Your task to perform on an android device: Play the last video I watched on Youtube Image 0: 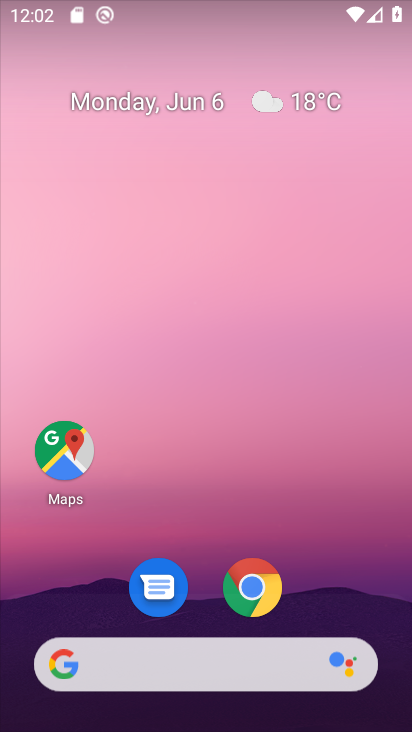
Step 0: drag from (273, 576) to (273, 145)
Your task to perform on an android device: Play the last video I watched on Youtube Image 1: 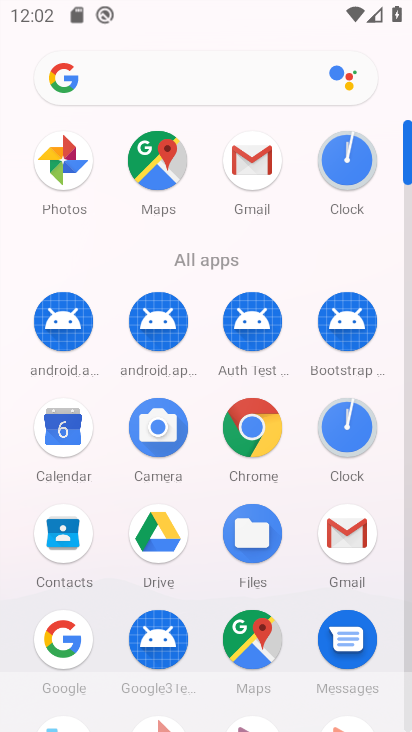
Step 1: drag from (349, 584) to (296, 328)
Your task to perform on an android device: Play the last video I watched on Youtube Image 2: 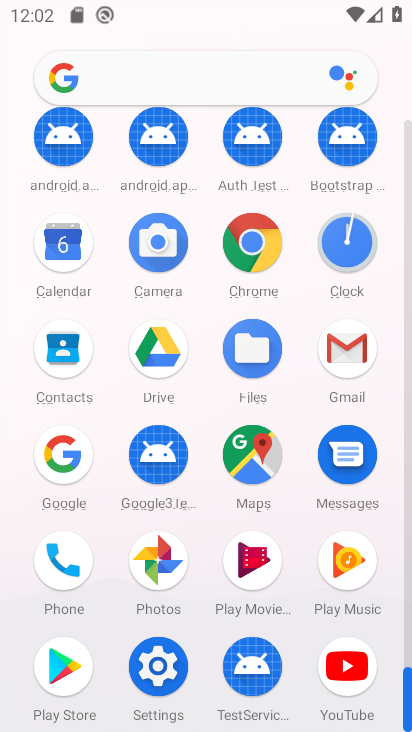
Step 2: click (342, 691)
Your task to perform on an android device: Play the last video I watched on Youtube Image 3: 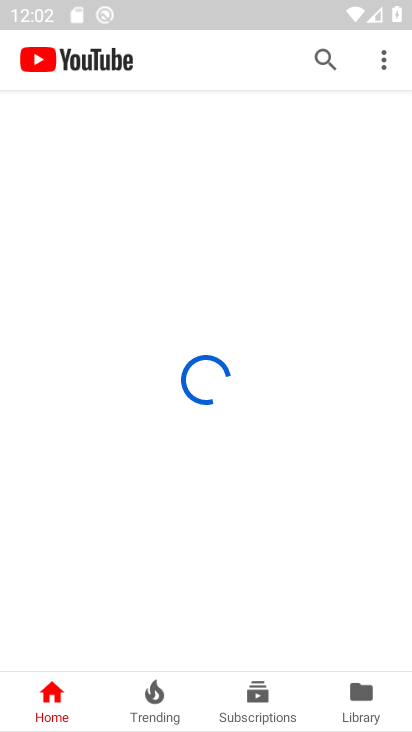
Step 3: click (359, 706)
Your task to perform on an android device: Play the last video I watched on Youtube Image 4: 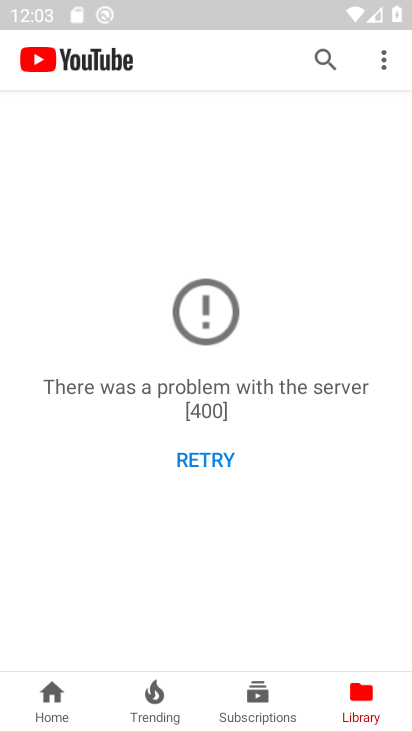
Step 4: task complete